Your task to perform on an android device: Open my contact list Image 0: 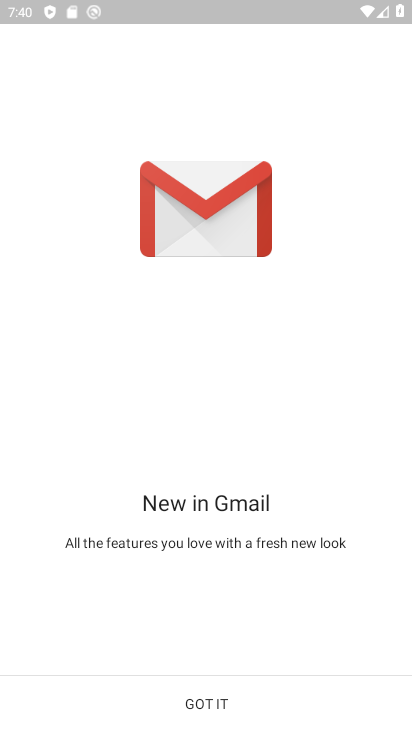
Step 0: press home button
Your task to perform on an android device: Open my contact list Image 1: 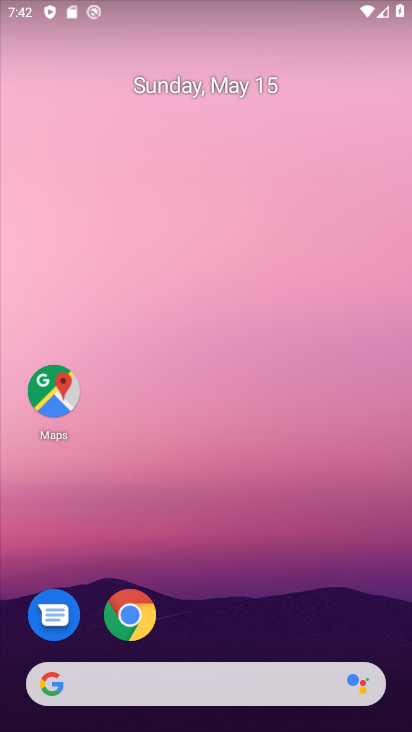
Step 1: drag from (225, 708) to (194, 175)
Your task to perform on an android device: Open my contact list Image 2: 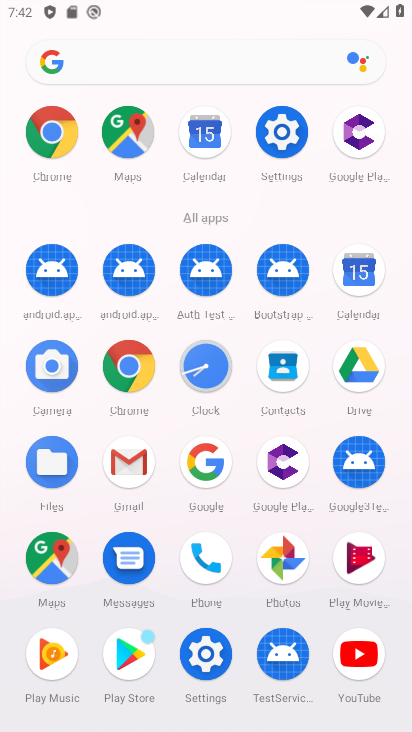
Step 2: click (218, 572)
Your task to perform on an android device: Open my contact list Image 3: 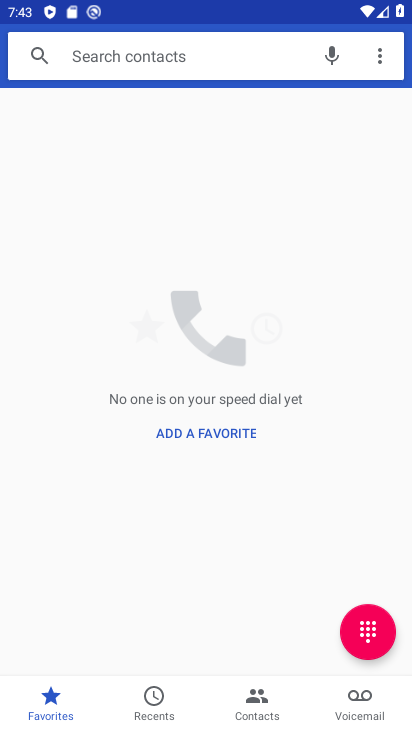
Step 3: click (262, 694)
Your task to perform on an android device: Open my contact list Image 4: 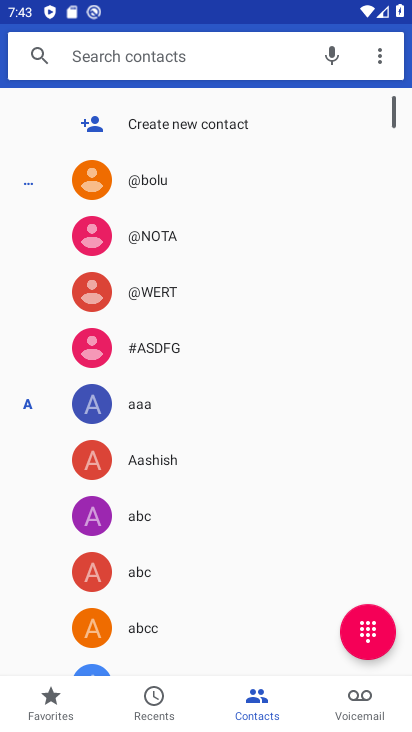
Step 4: task complete